Your task to perform on an android device: Open my contact list Image 0: 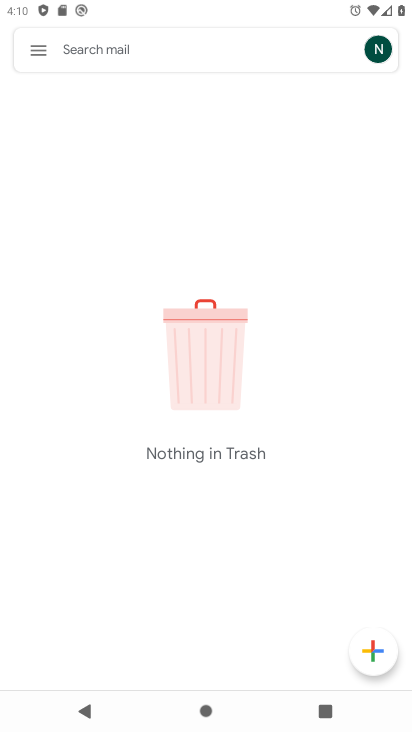
Step 0: press home button
Your task to perform on an android device: Open my contact list Image 1: 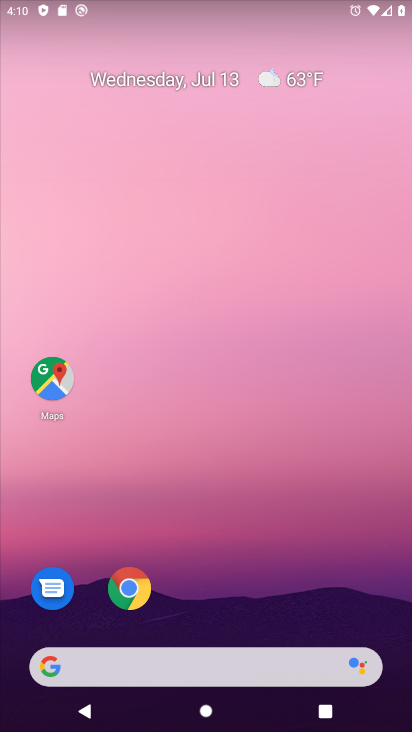
Step 1: drag from (211, 670) to (231, 247)
Your task to perform on an android device: Open my contact list Image 2: 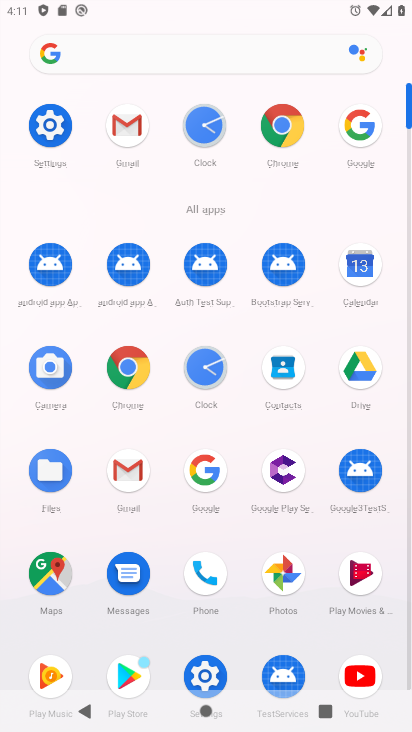
Step 2: click (284, 366)
Your task to perform on an android device: Open my contact list Image 3: 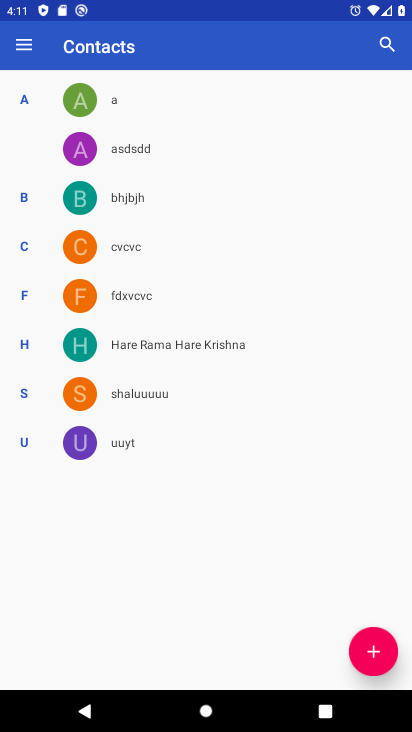
Step 3: task complete